Your task to perform on an android device: change notification settings in the gmail app Image 0: 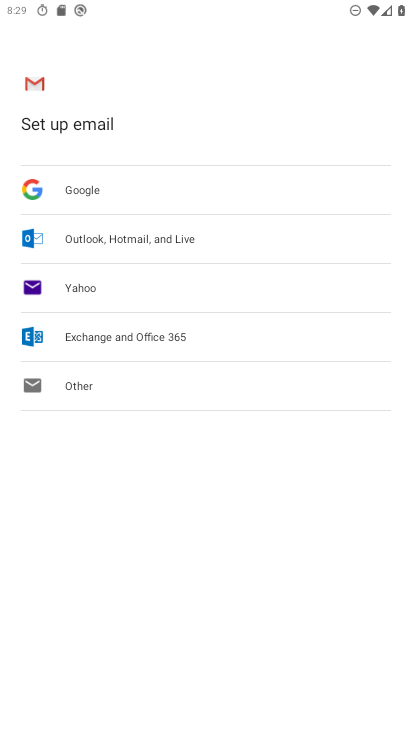
Step 0: press home button
Your task to perform on an android device: change notification settings in the gmail app Image 1: 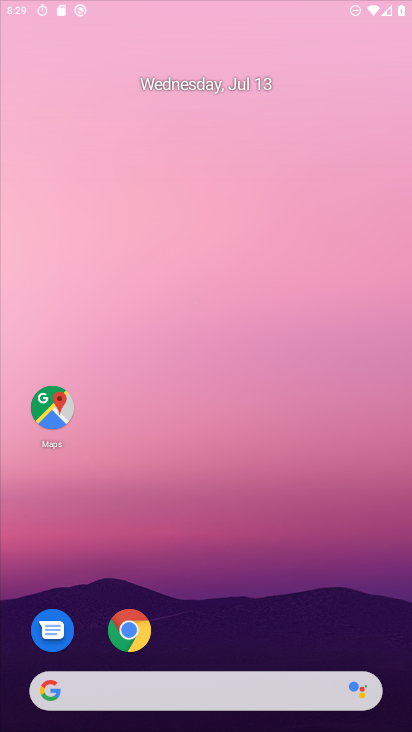
Step 1: drag from (385, 665) to (247, 12)
Your task to perform on an android device: change notification settings in the gmail app Image 2: 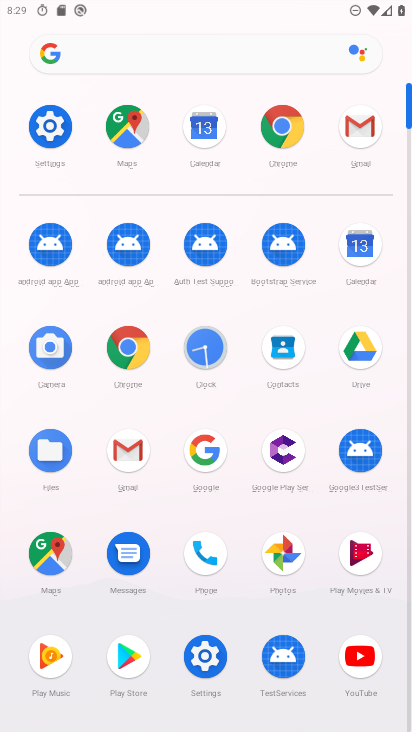
Step 2: click (131, 450)
Your task to perform on an android device: change notification settings in the gmail app Image 3: 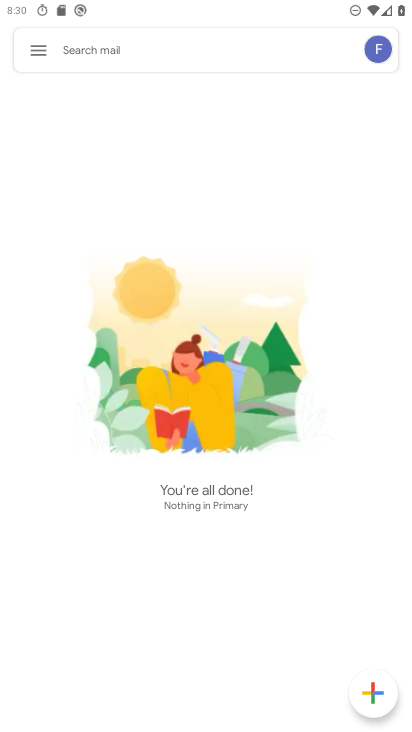
Step 3: click (38, 51)
Your task to perform on an android device: change notification settings in the gmail app Image 4: 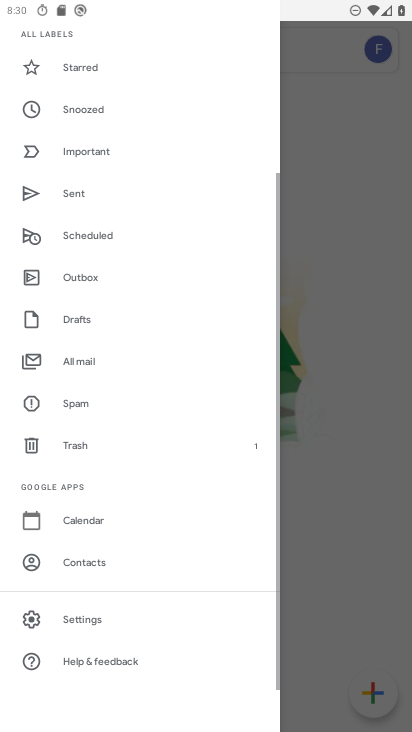
Step 4: click (63, 609)
Your task to perform on an android device: change notification settings in the gmail app Image 5: 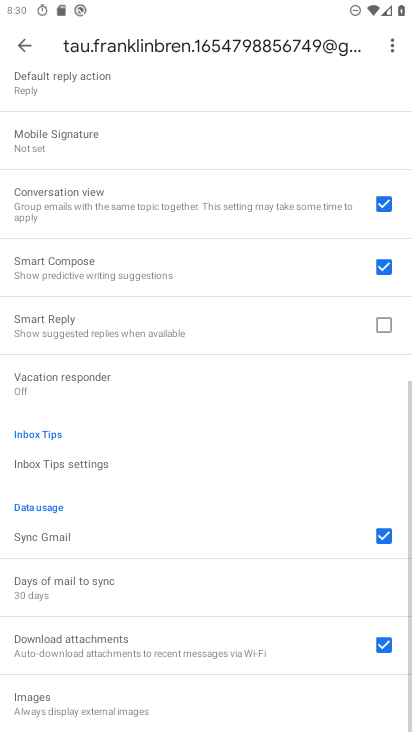
Step 5: drag from (164, 237) to (163, 723)
Your task to perform on an android device: change notification settings in the gmail app Image 6: 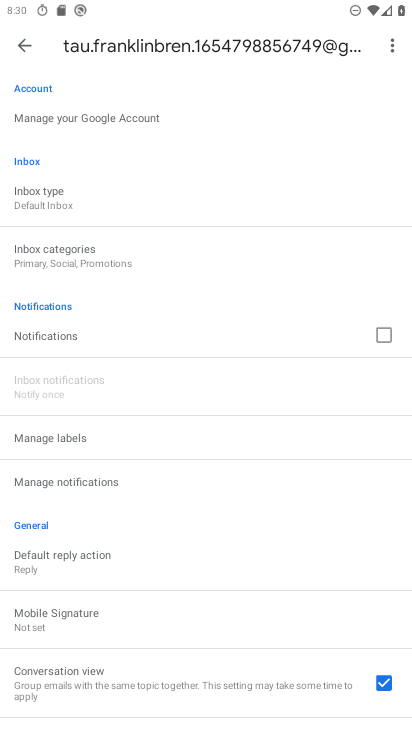
Step 6: drag from (160, 257) to (166, 602)
Your task to perform on an android device: change notification settings in the gmail app Image 7: 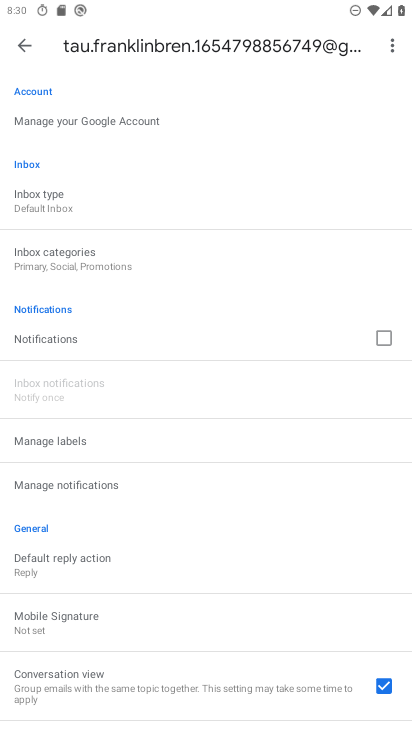
Step 7: click (273, 335)
Your task to perform on an android device: change notification settings in the gmail app Image 8: 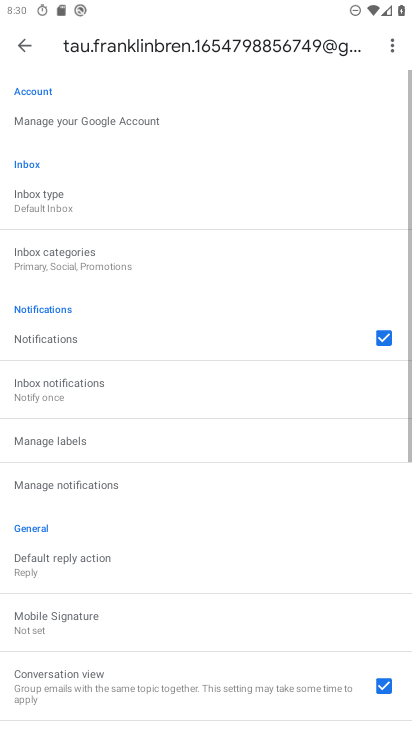
Step 8: task complete